Your task to perform on an android device: install app "Messenger Lite" Image 0: 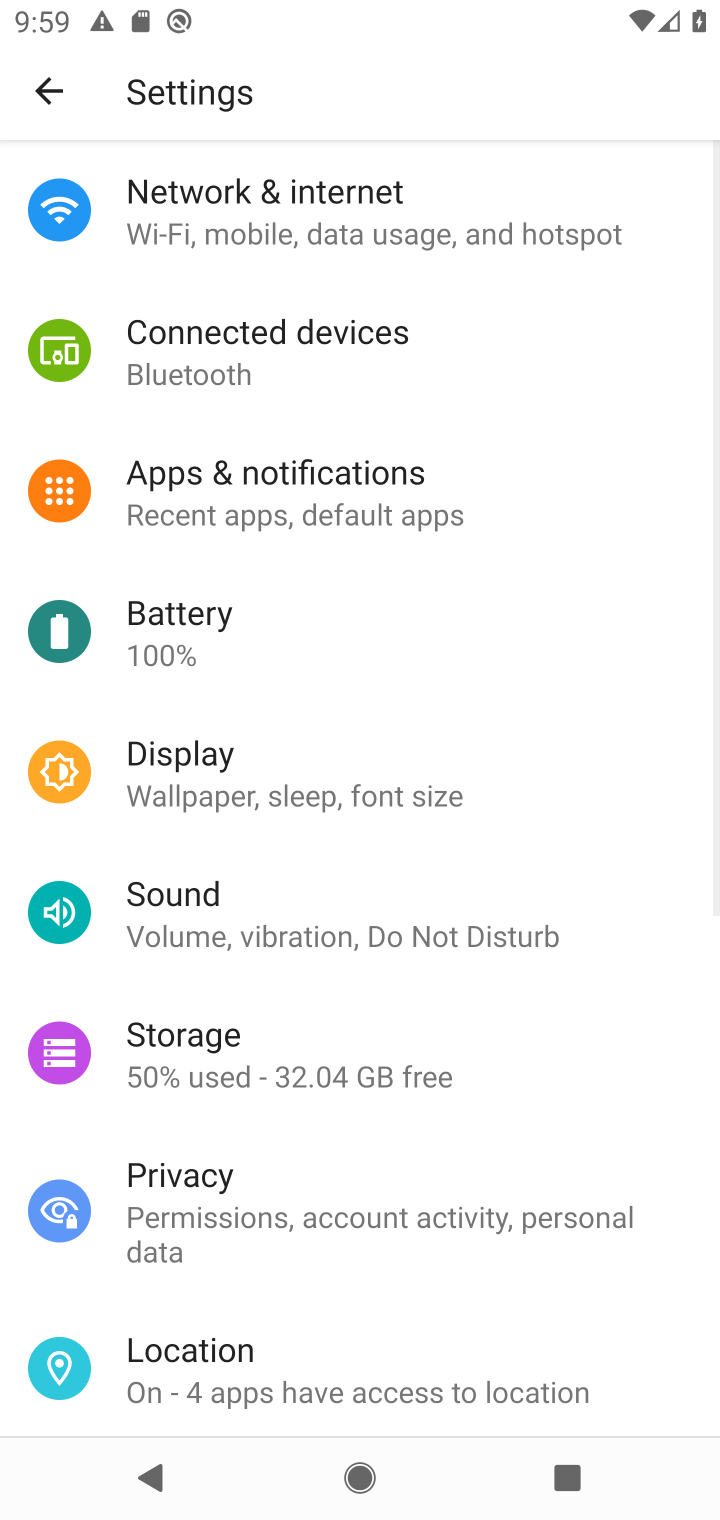
Step 0: press home button
Your task to perform on an android device: install app "Messenger Lite" Image 1: 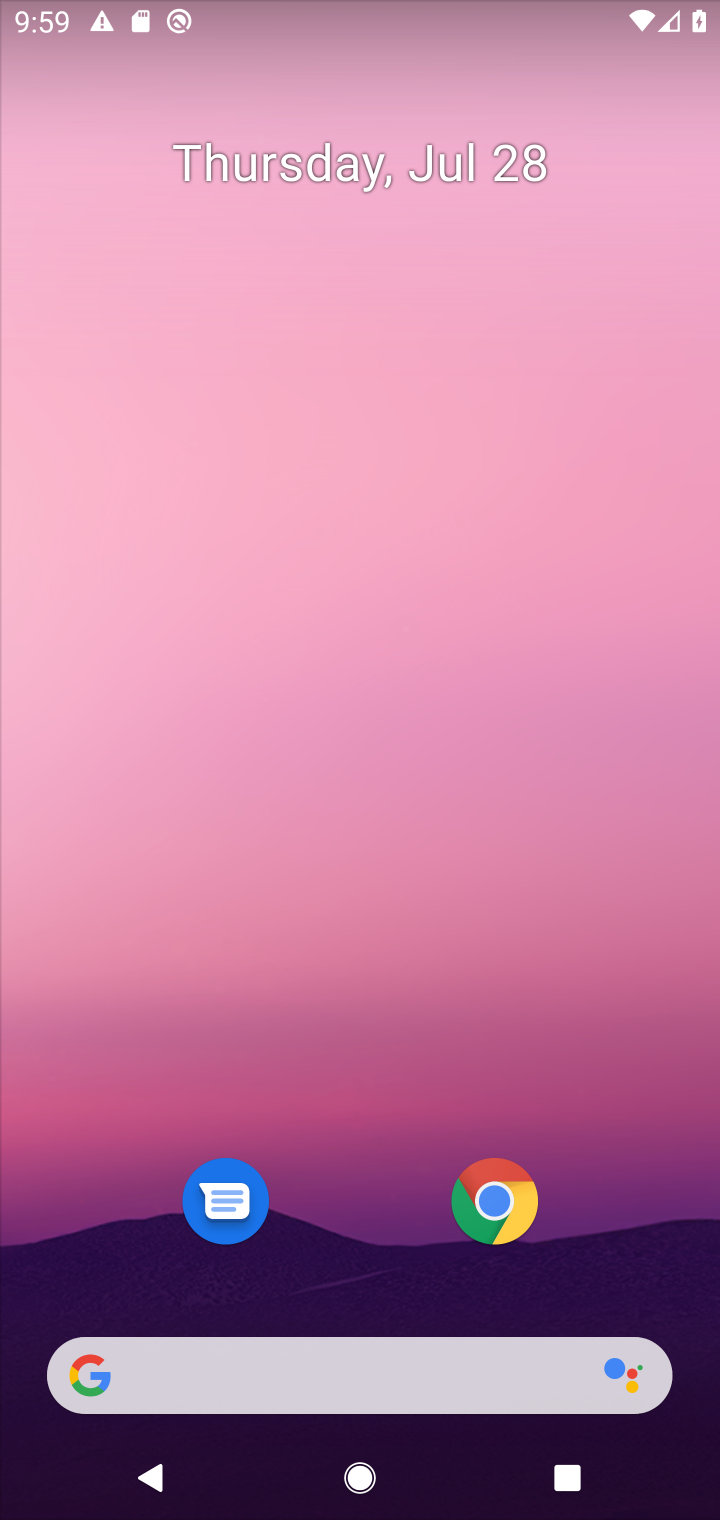
Step 1: drag from (320, 1085) to (208, 12)
Your task to perform on an android device: install app "Messenger Lite" Image 2: 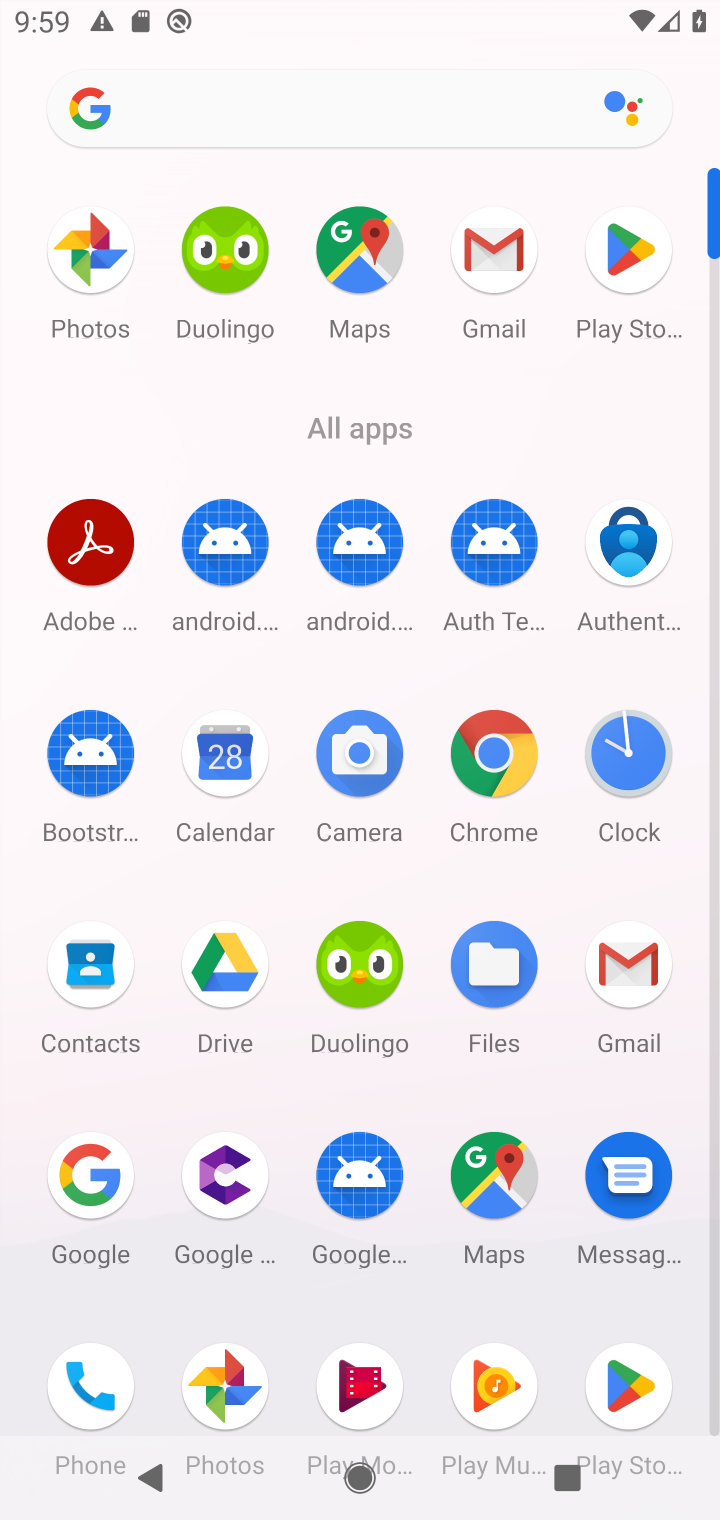
Step 2: click (624, 299)
Your task to perform on an android device: install app "Messenger Lite" Image 3: 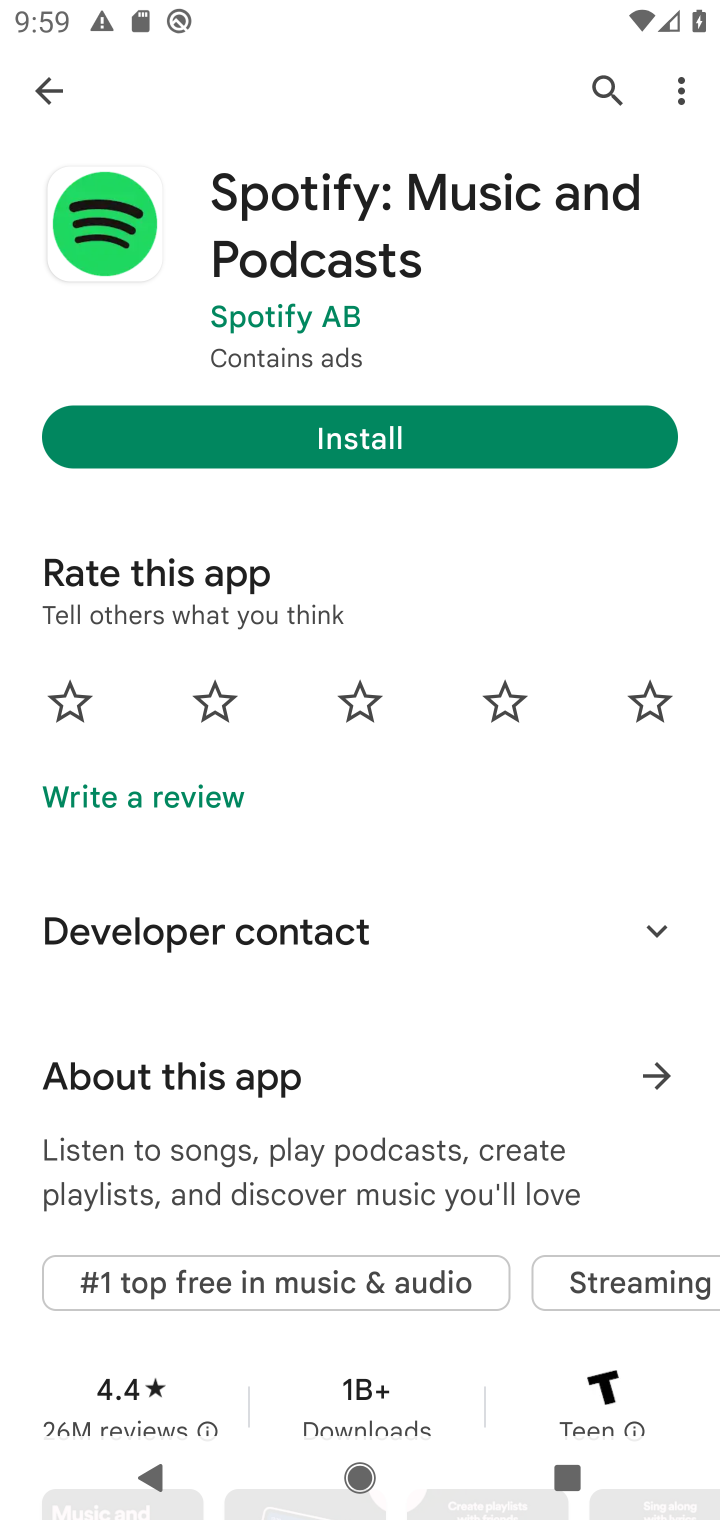
Step 3: click (30, 89)
Your task to perform on an android device: install app "Messenger Lite" Image 4: 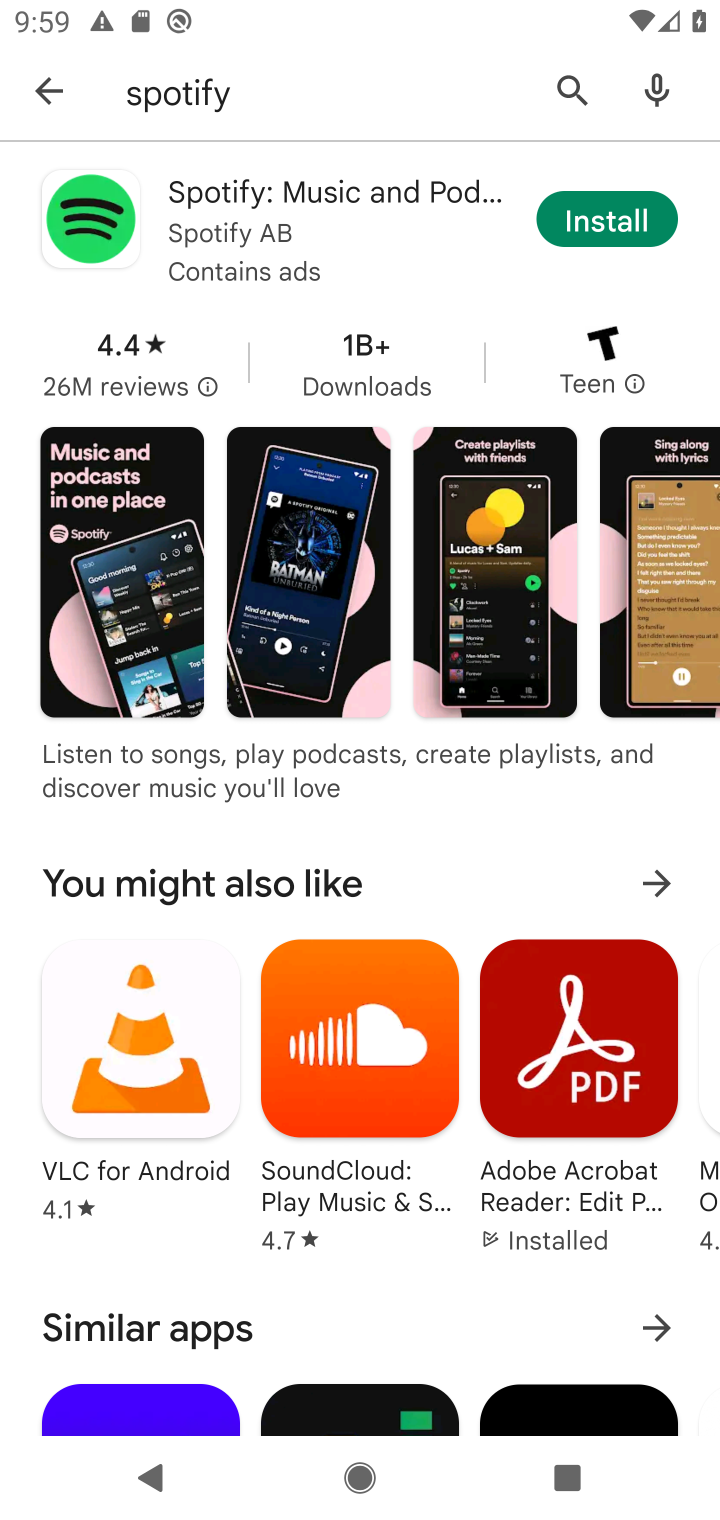
Step 4: click (274, 104)
Your task to perform on an android device: install app "Messenger Lite" Image 5: 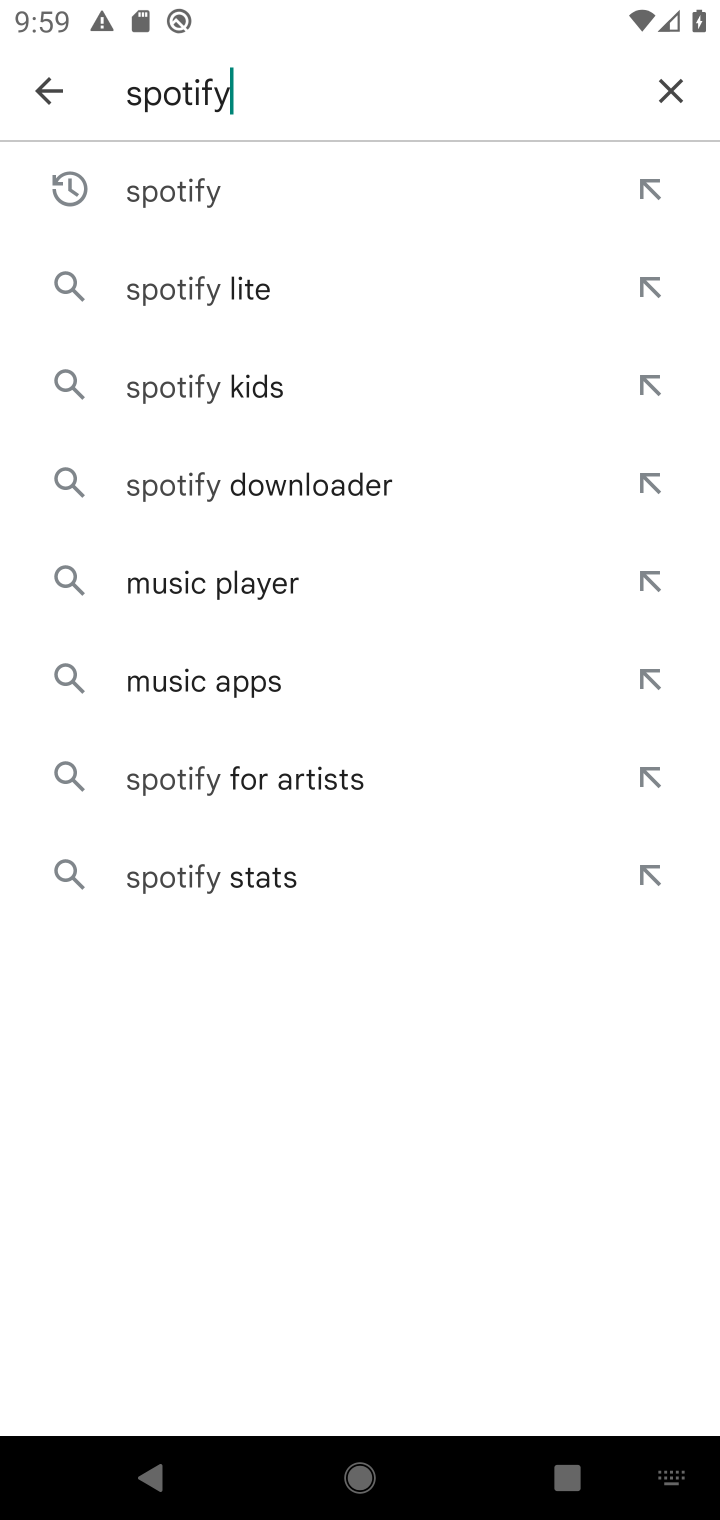
Step 5: click (665, 82)
Your task to perform on an android device: install app "Messenger Lite" Image 6: 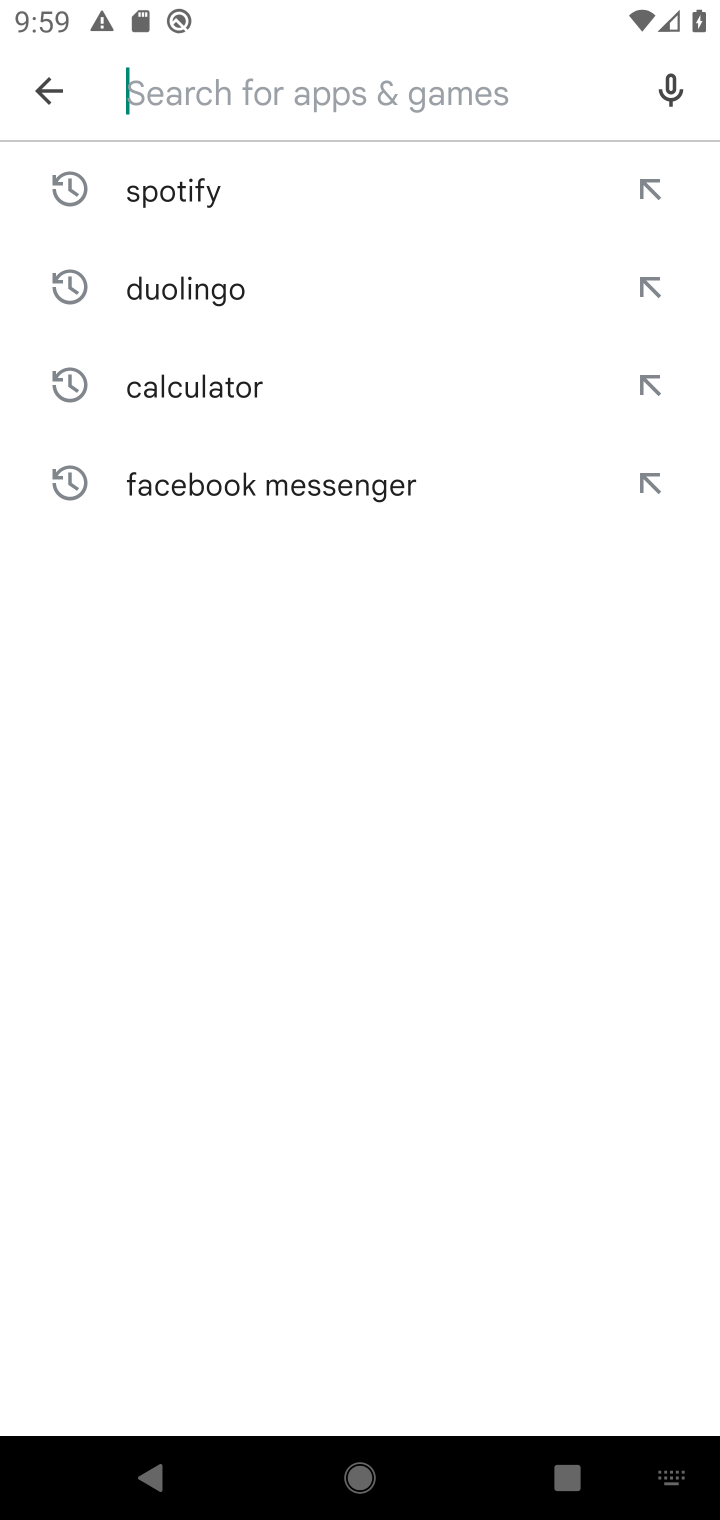
Step 6: type "Messenger Lite"
Your task to perform on an android device: install app "Messenger Lite" Image 7: 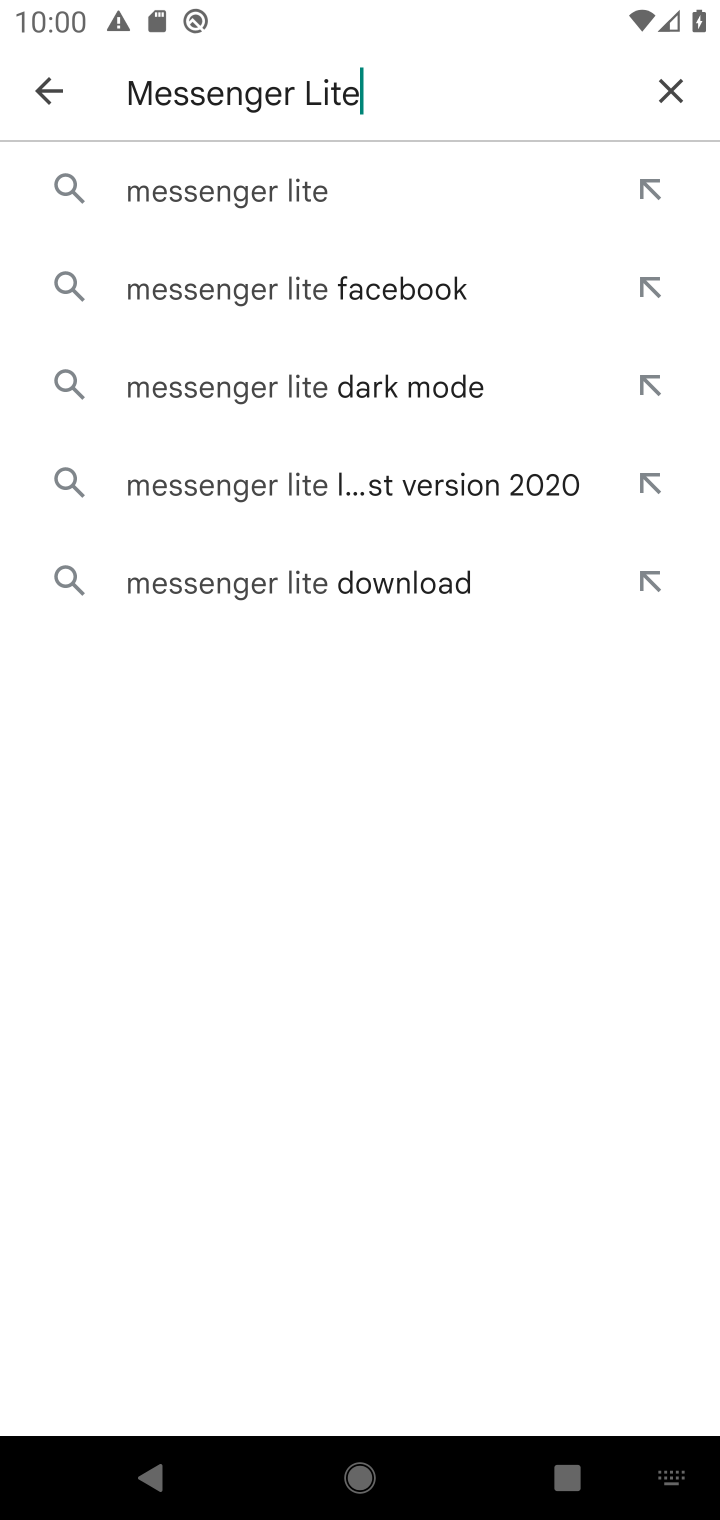
Step 7: click (212, 214)
Your task to perform on an android device: install app "Messenger Lite" Image 8: 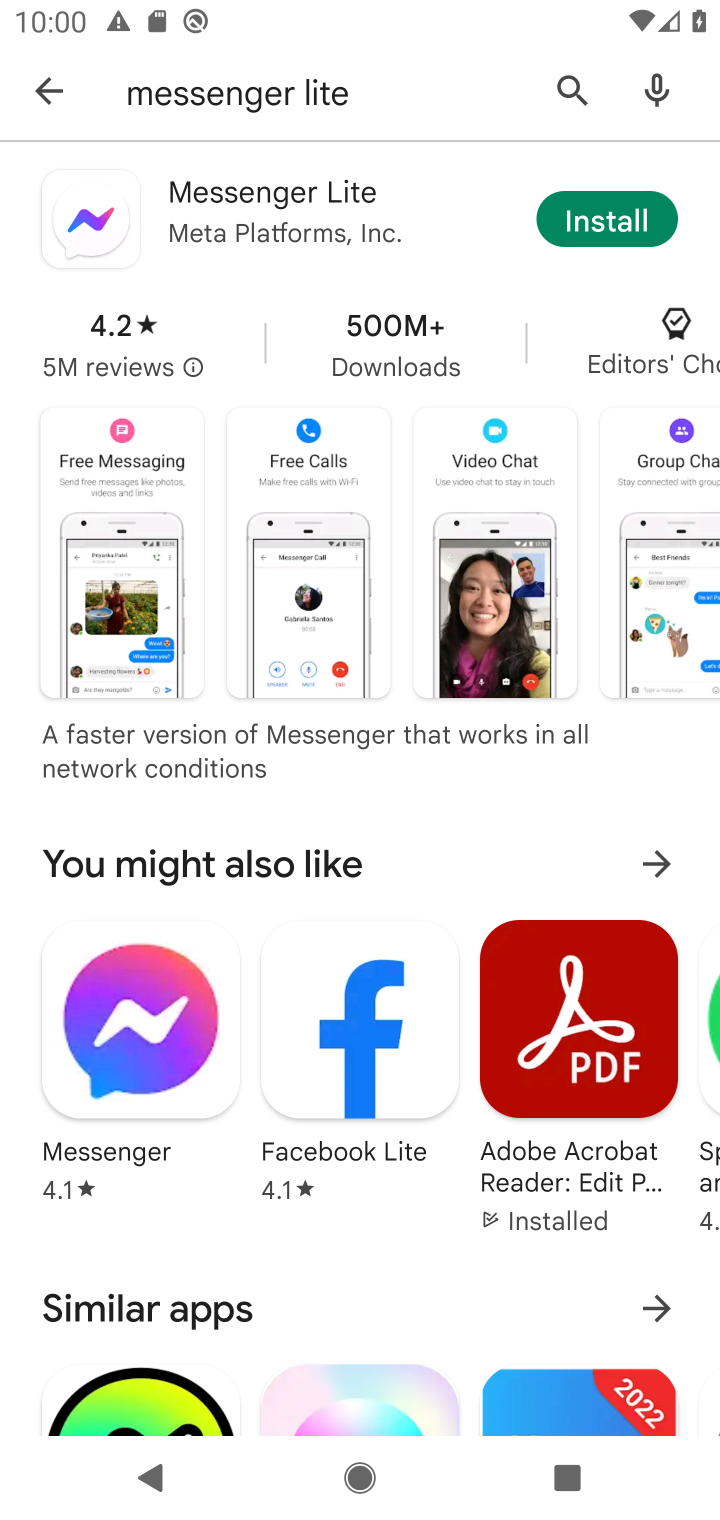
Step 8: click (627, 221)
Your task to perform on an android device: install app "Messenger Lite" Image 9: 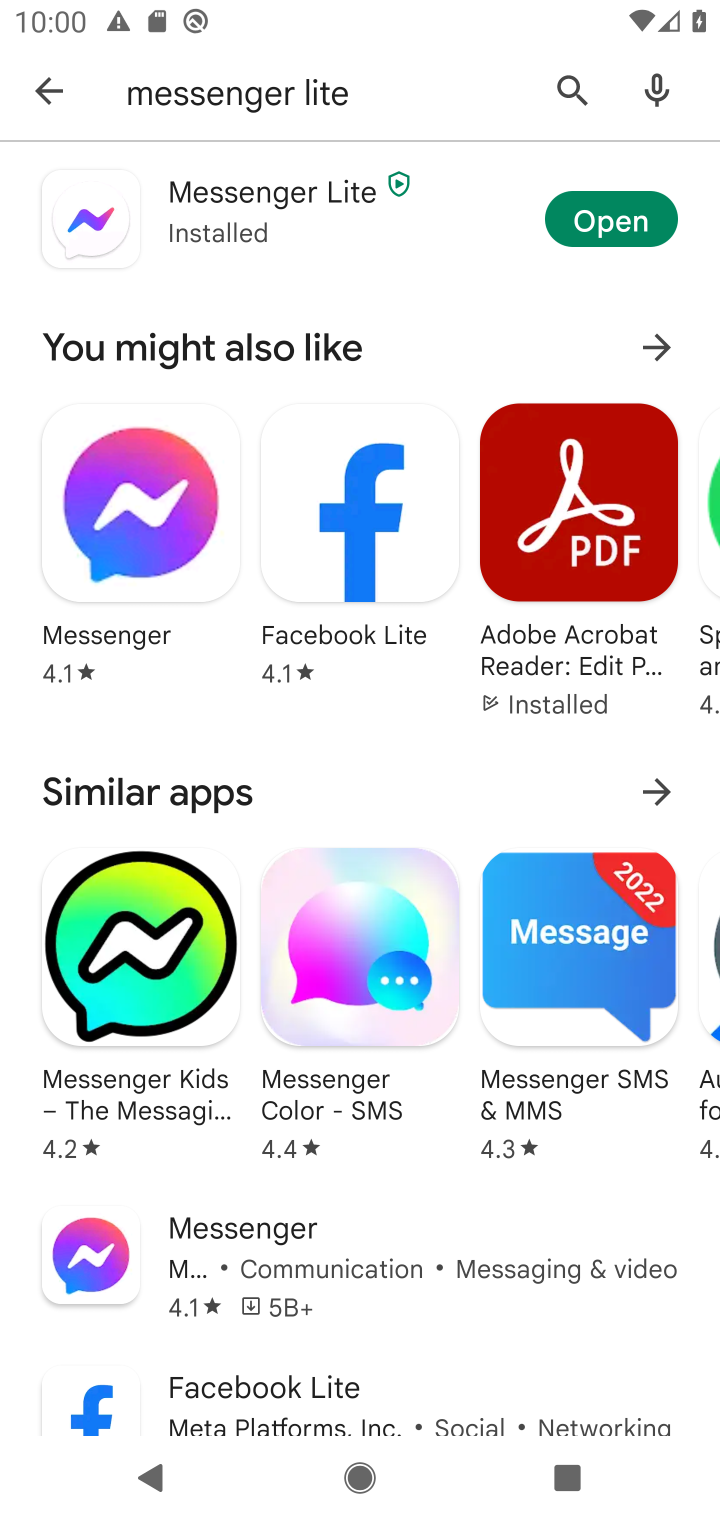
Step 9: task complete